Your task to perform on an android device: move a message to another label in the gmail app Image 0: 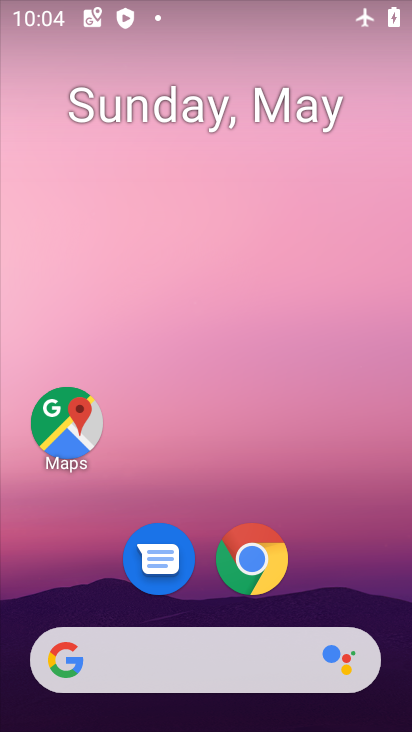
Step 0: drag from (180, 615) to (174, 12)
Your task to perform on an android device: move a message to another label in the gmail app Image 1: 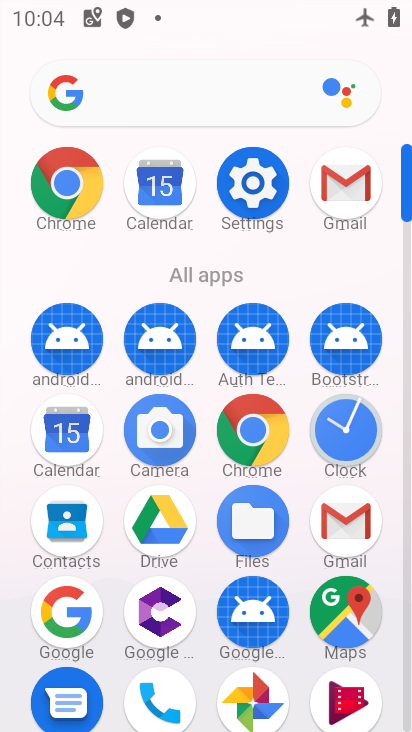
Step 1: click (362, 529)
Your task to perform on an android device: move a message to another label in the gmail app Image 2: 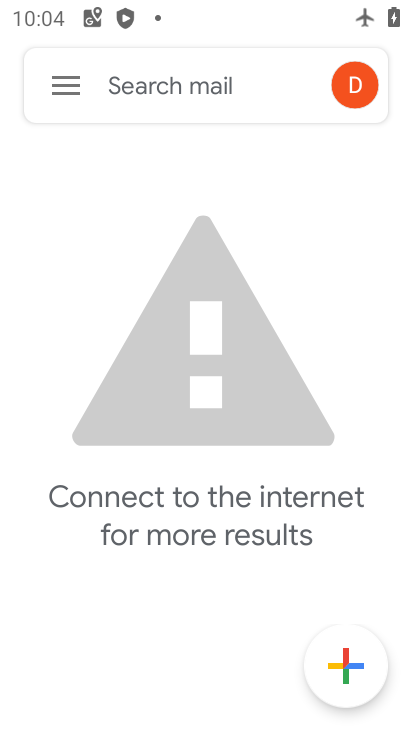
Step 2: click (61, 90)
Your task to perform on an android device: move a message to another label in the gmail app Image 3: 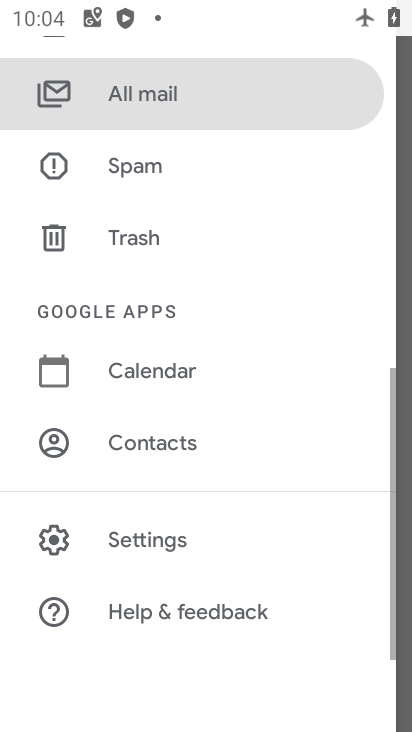
Step 3: drag from (104, 115) to (136, 687)
Your task to perform on an android device: move a message to another label in the gmail app Image 4: 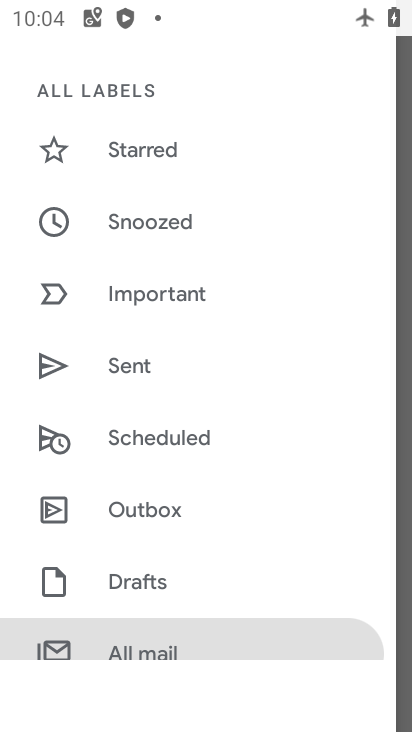
Step 4: click (142, 171)
Your task to perform on an android device: move a message to another label in the gmail app Image 5: 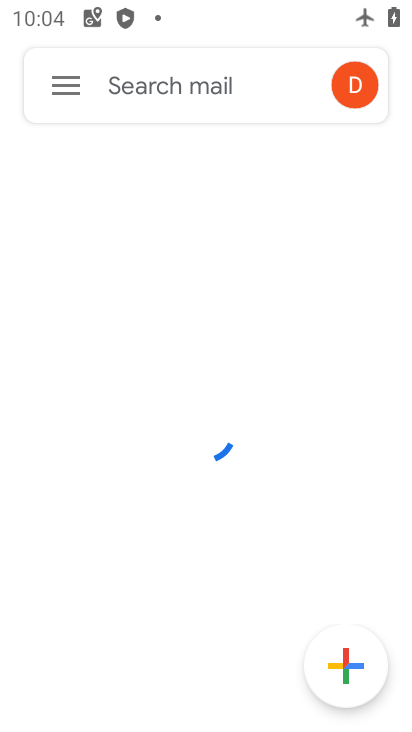
Step 5: task complete